Your task to perform on an android device: make emails show in primary in the gmail app Image 0: 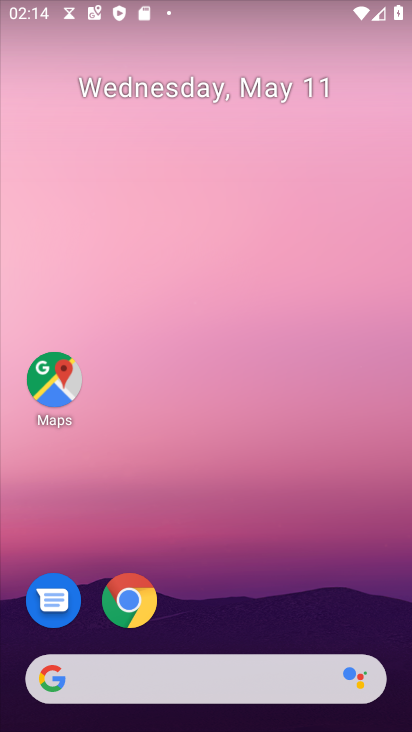
Step 0: drag from (251, 575) to (246, 320)
Your task to perform on an android device: make emails show in primary in the gmail app Image 1: 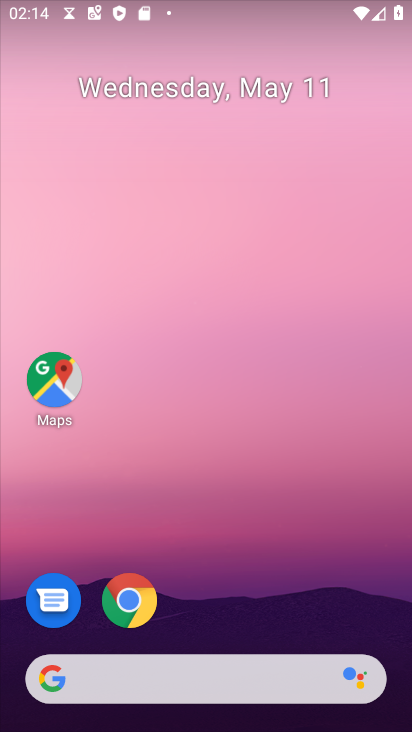
Step 1: drag from (281, 583) to (272, 261)
Your task to perform on an android device: make emails show in primary in the gmail app Image 2: 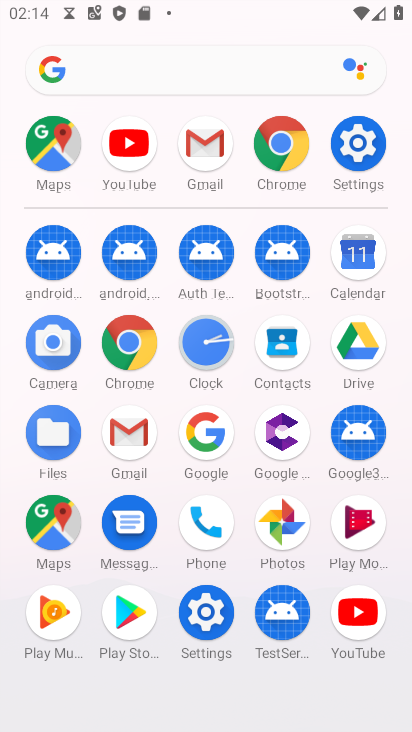
Step 2: click (211, 141)
Your task to perform on an android device: make emails show in primary in the gmail app Image 3: 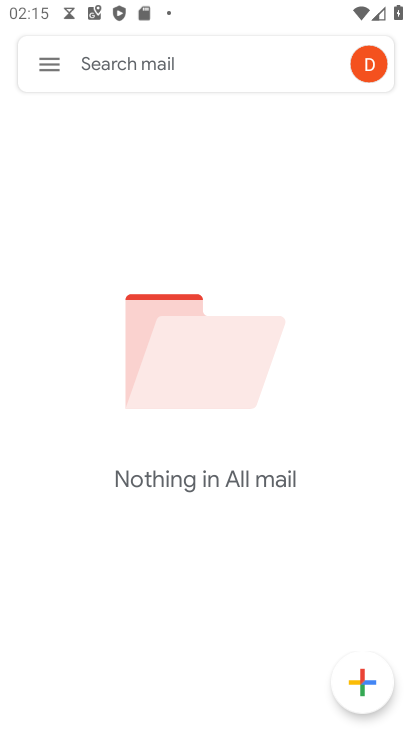
Step 3: click (44, 62)
Your task to perform on an android device: make emails show in primary in the gmail app Image 4: 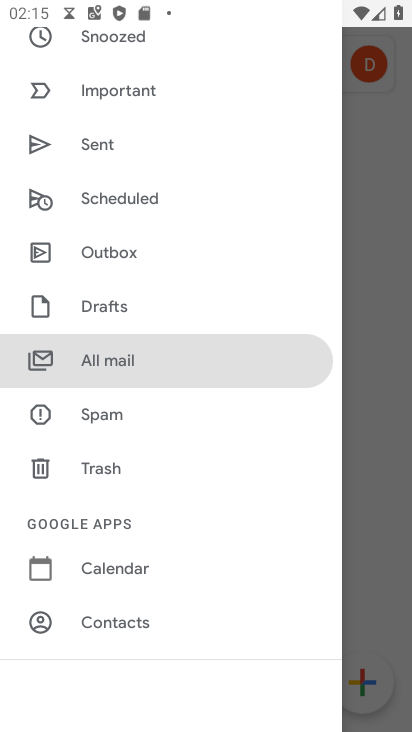
Step 4: drag from (129, 569) to (166, 248)
Your task to perform on an android device: make emails show in primary in the gmail app Image 5: 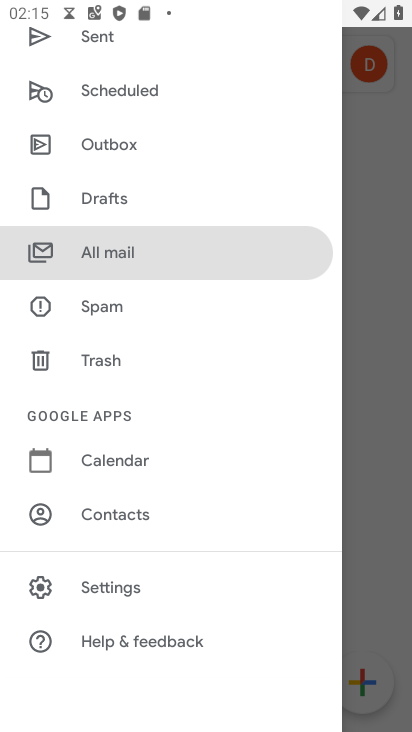
Step 5: click (124, 595)
Your task to perform on an android device: make emails show in primary in the gmail app Image 6: 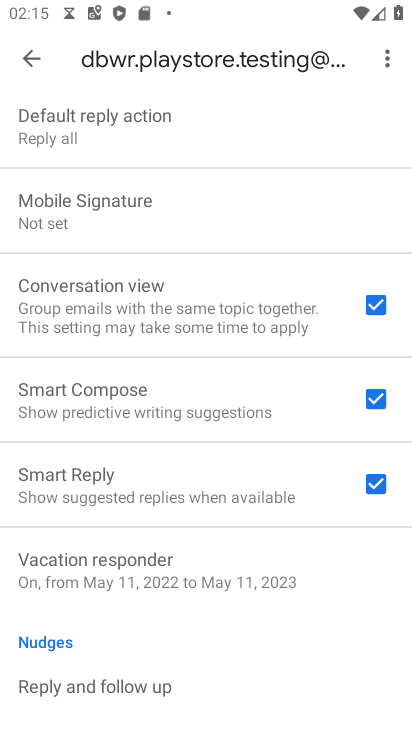
Step 6: task complete